Your task to perform on an android device: snooze an email in the gmail app Image 0: 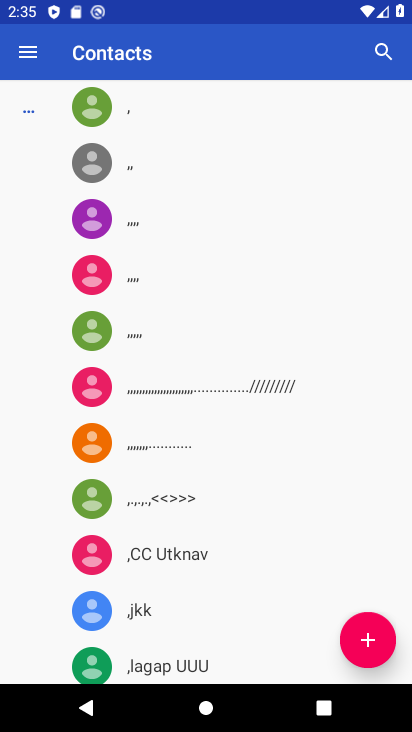
Step 0: press back button
Your task to perform on an android device: snooze an email in the gmail app Image 1: 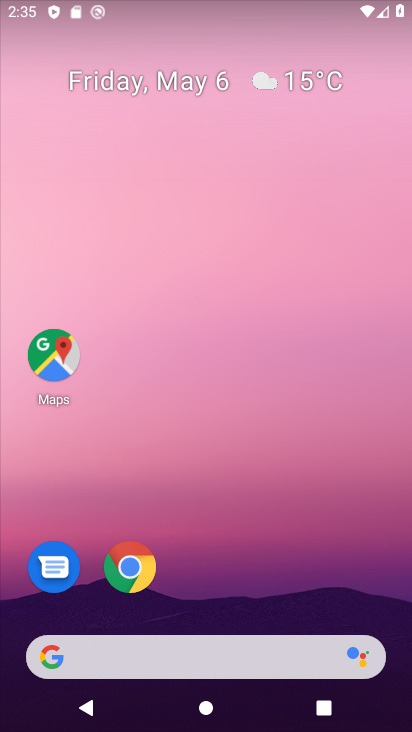
Step 1: drag from (139, 605) to (238, 72)
Your task to perform on an android device: snooze an email in the gmail app Image 2: 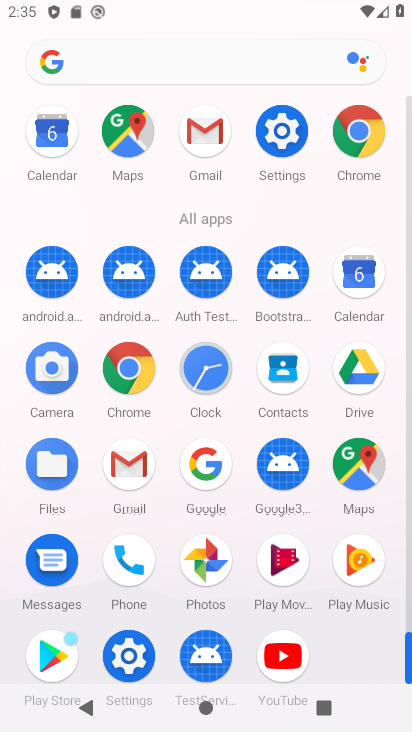
Step 2: click (134, 471)
Your task to perform on an android device: snooze an email in the gmail app Image 3: 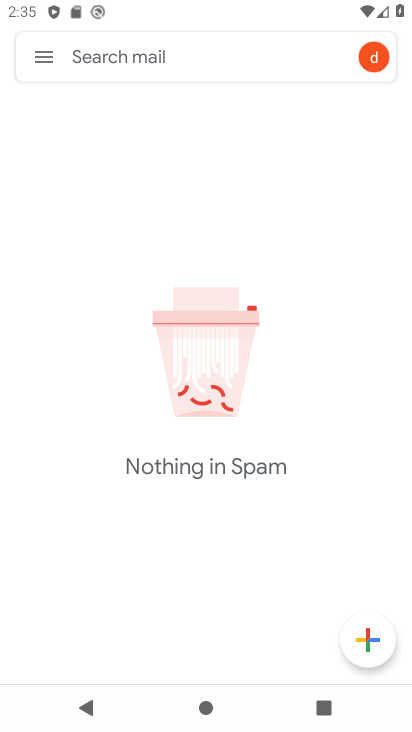
Step 3: click (59, 56)
Your task to perform on an android device: snooze an email in the gmail app Image 4: 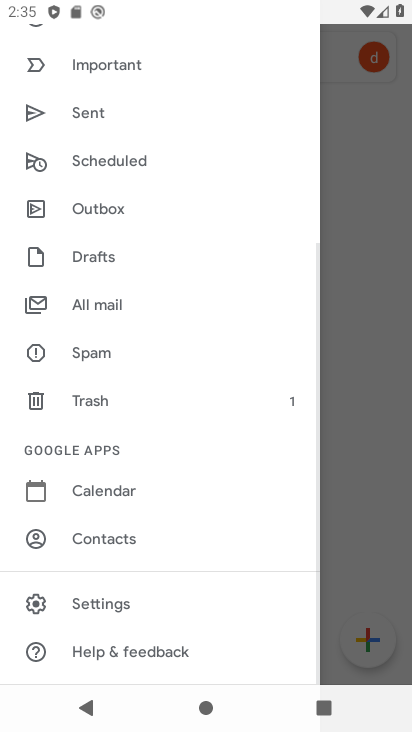
Step 4: drag from (194, 134) to (189, 520)
Your task to perform on an android device: snooze an email in the gmail app Image 5: 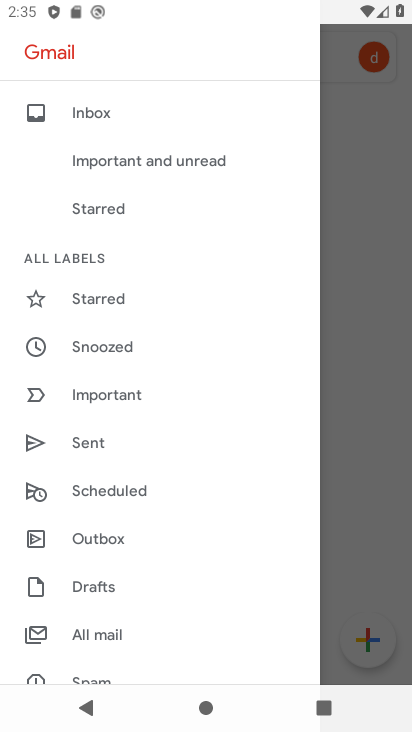
Step 5: click (114, 632)
Your task to perform on an android device: snooze an email in the gmail app Image 6: 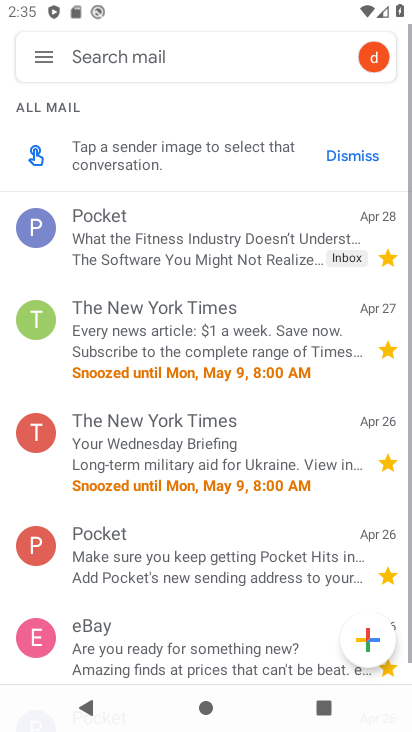
Step 6: click (146, 562)
Your task to perform on an android device: snooze an email in the gmail app Image 7: 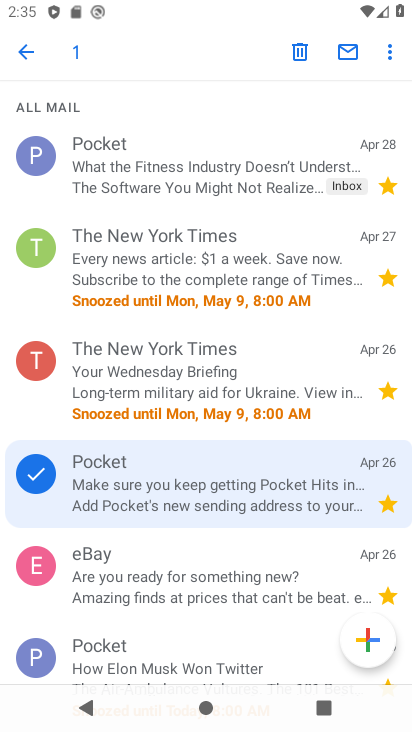
Step 7: click (379, 54)
Your task to perform on an android device: snooze an email in the gmail app Image 8: 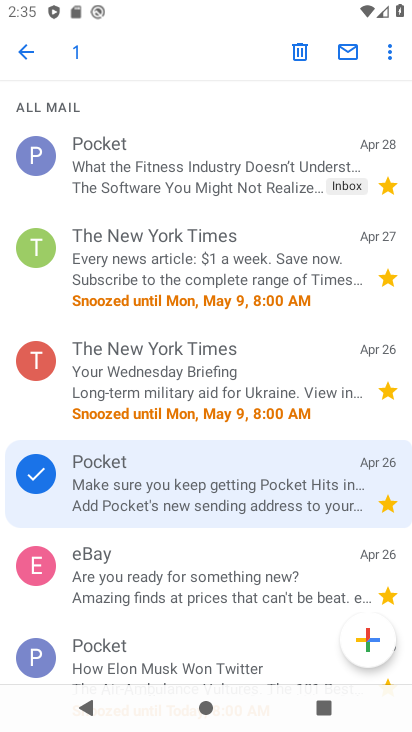
Step 8: click (402, 67)
Your task to perform on an android device: snooze an email in the gmail app Image 9: 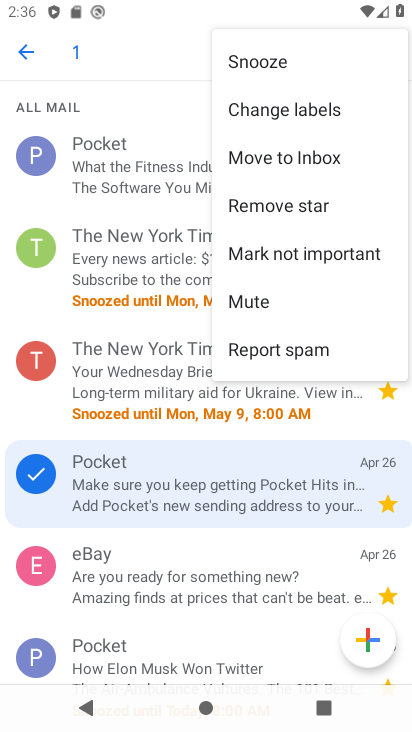
Step 9: click (299, 72)
Your task to perform on an android device: snooze an email in the gmail app Image 10: 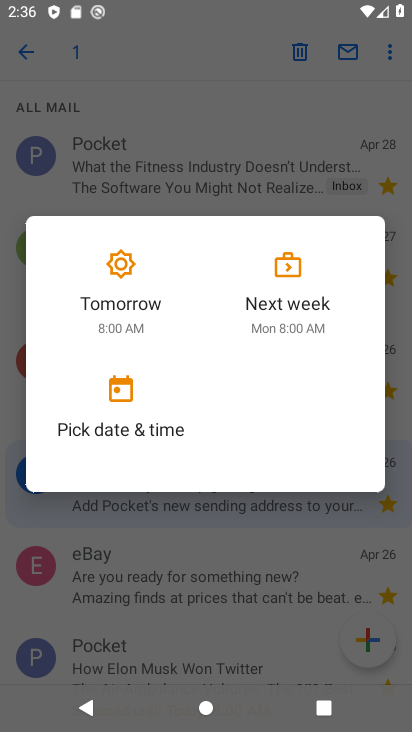
Step 10: click (123, 315)
Your task to perform on an android device: snooze an email in the gmail app Image 11: 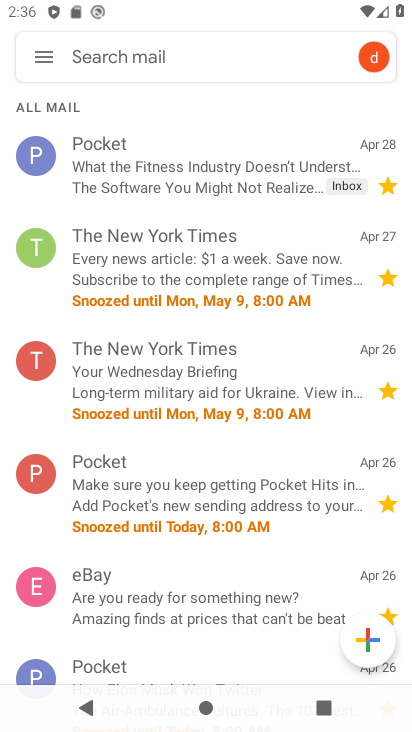
Step 11: task complete